Your task to perform on an android device: Open Google Chrome and open the bookmarks view Image 0: 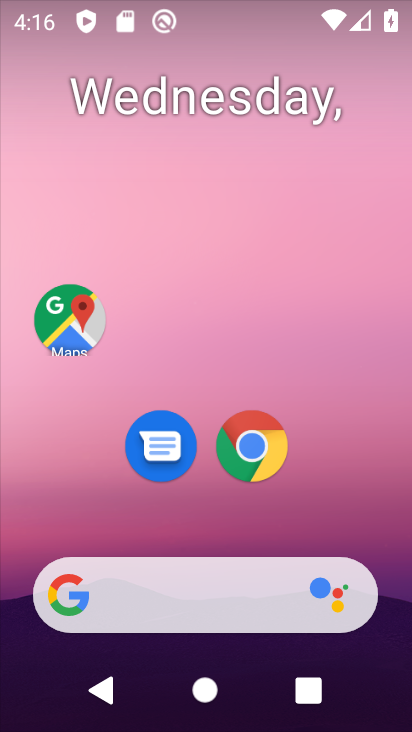
Step 0: click (253, 448)
Your task to perform on an android device: Open Google Chrome and open the bookmarks view Image 1: 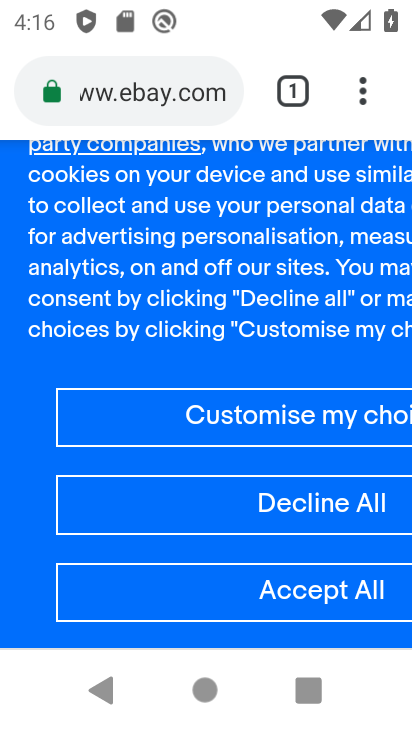
Step 1: click (362, 97)
Your task to perform on an android device: Open Google Chrome and open the bookmarks view Image 2: 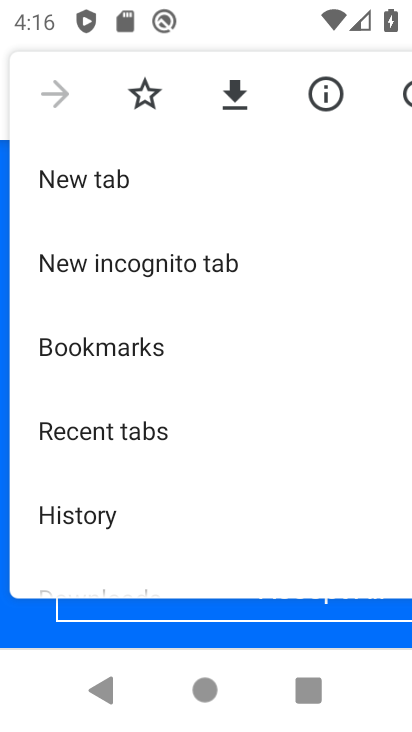
Step 2: click (90, 347)
Your task to perform on an android device: Open Google Chrome and open the bookmarks view Image 3: 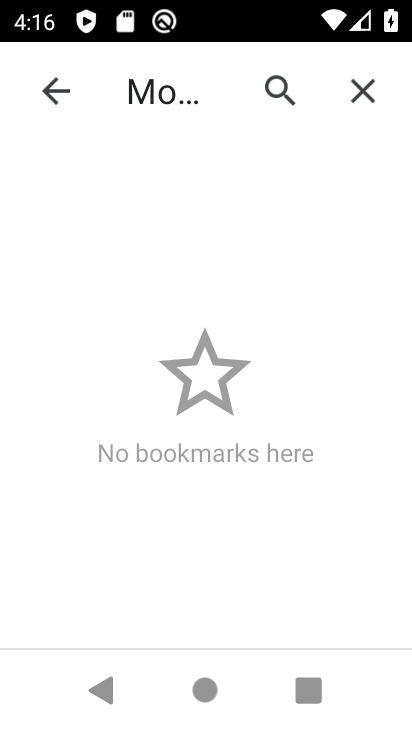
Step 3: task complete